Your task to perform on an android device: turn on notifications settings in the gmail app Image 0: 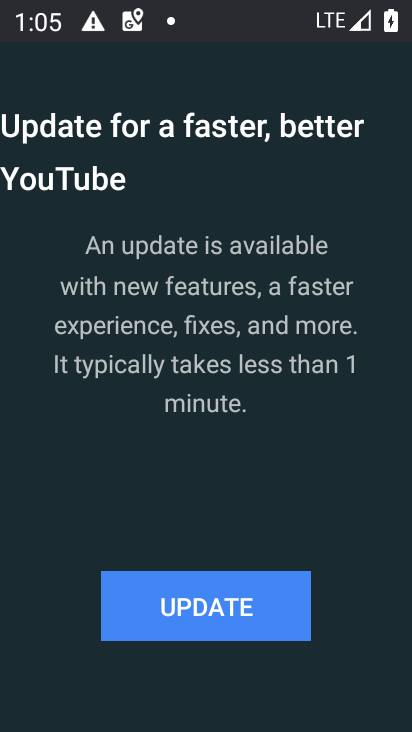
Step 0: press home button
Your task to perform on an android device: turn on notifications settings in the gmail app Image 1: 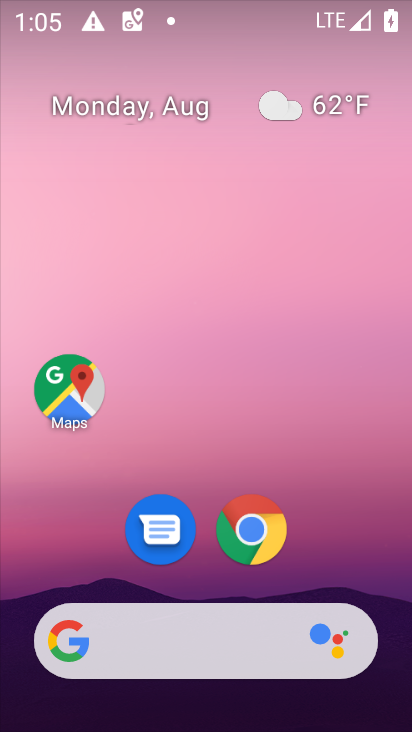
Step 1: drag from (172, 589) to (173, 279)
Your task to perform on an android device: turn on notifications settings in the gmail app Image 2: 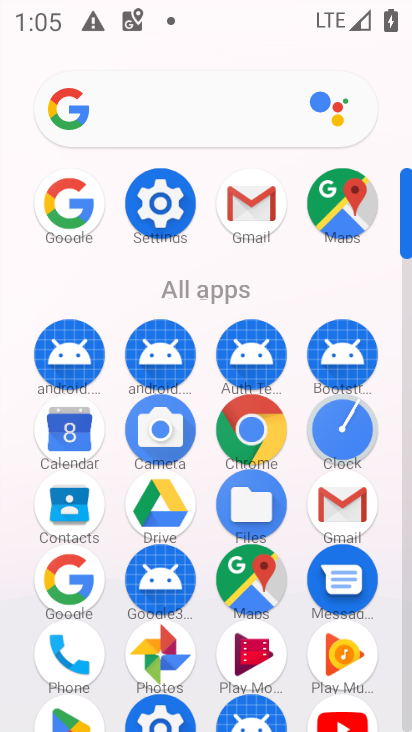
Step 2: click (357, 504)
Your task to perform on an android device: turn on notifications settings in the gmail app Image 3: 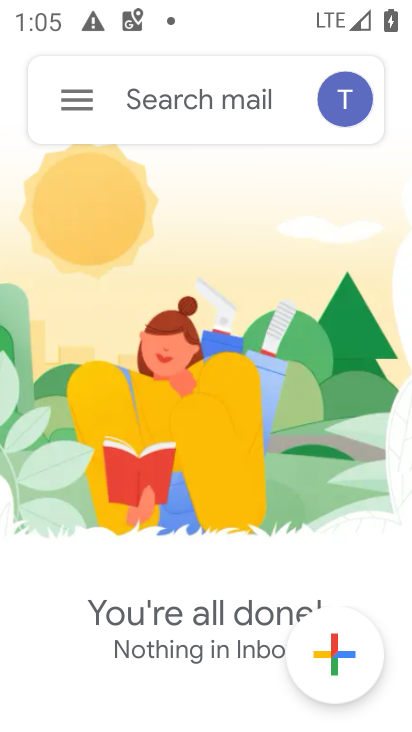
Step 3: click (79, 105)
Your task to perform on an android device: turn on notifications settings in the gmail app Image 4: 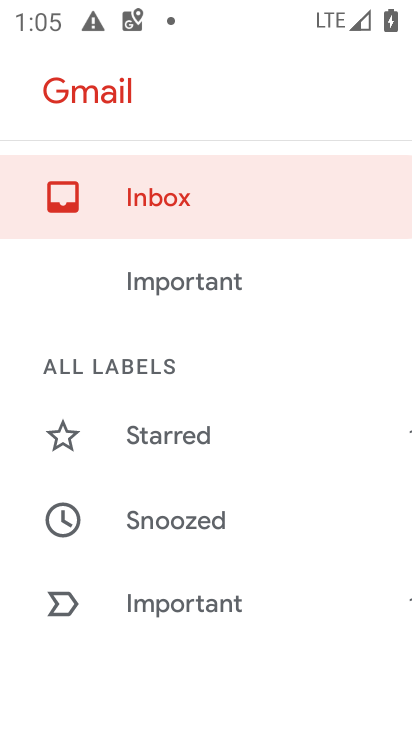
Step 4: drag from (144, 639) to (155, 244)
Your task to perform on an android device: turn on notifications settings in the gmail app Image 5: 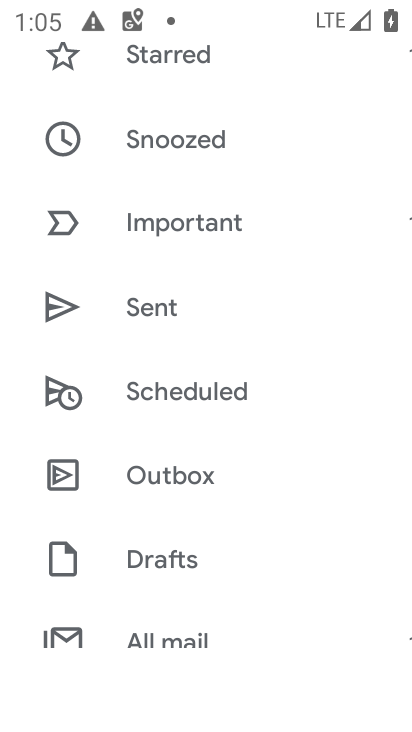
Step 5: drag from (158, 631) to (163, 334)
Your task to perform on an android device: turn on notifications settings in the gmail app Image 6: 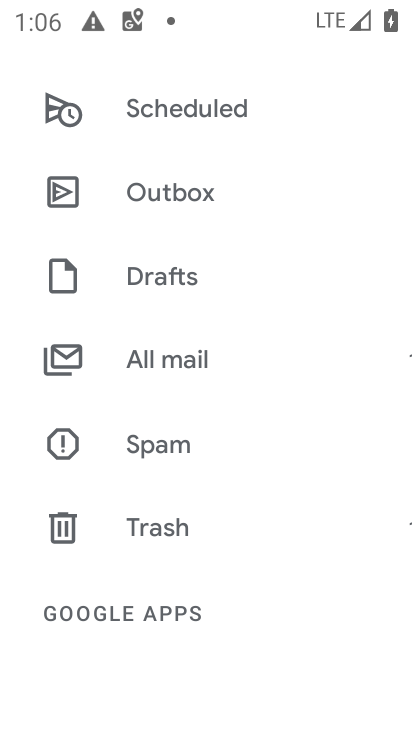
Step 6: drag from (148, 642) to (147, 337)
Your task to perform on an android device: turn on notifications settings in the gmail app Image 7: 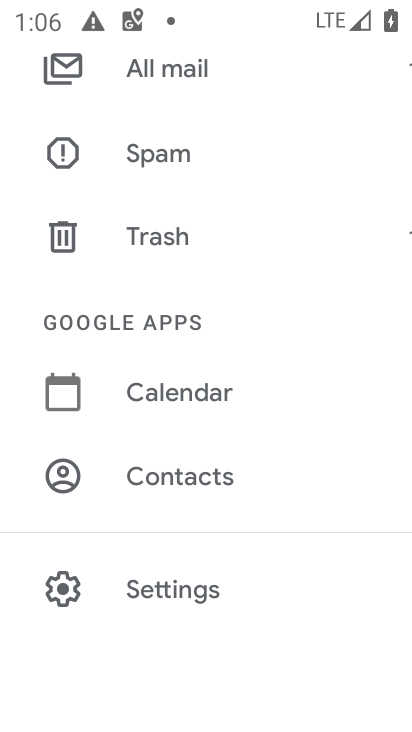
Step 7: click (124, 588)
Your task to perform on an android device: turn on notifications settings in the gmail app Image 8: 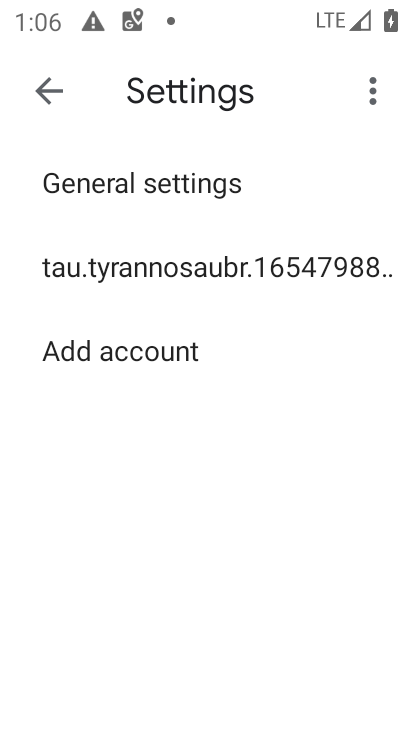
Step 8: click (100, 268)
Your task to perform on an android device: turn on notifications settings in the gmail app Image 9: 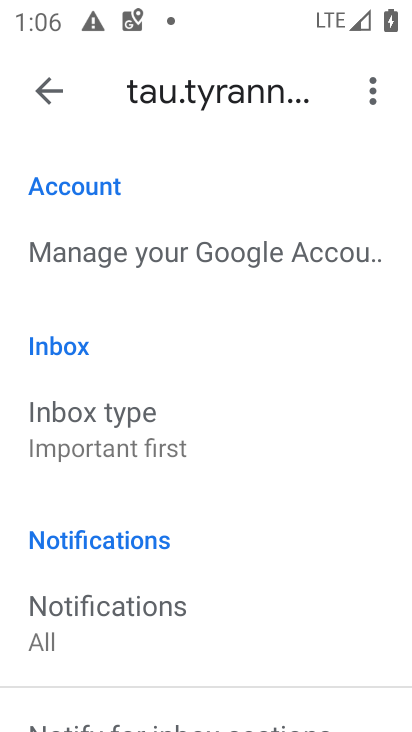
Step 9: drag from (95, 664) to (93, 257)
Your task to perform on an android device: turn on notifications settings in the gmail app Image 10: 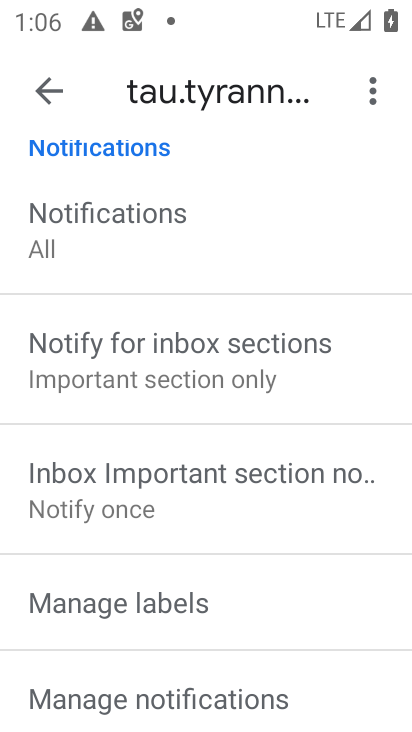
Step 10: drag from (97, 652) to (107, 317)
Your task to perform on an android device: turn on notifications settings in the gmail app Image 11: 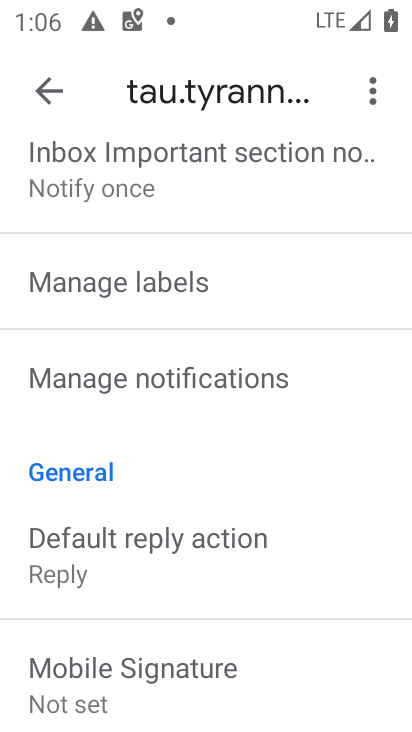
Step 11: click (124, 699)
Your task to perform on an android device: turn on notifications settings in the gmail app Image 12: 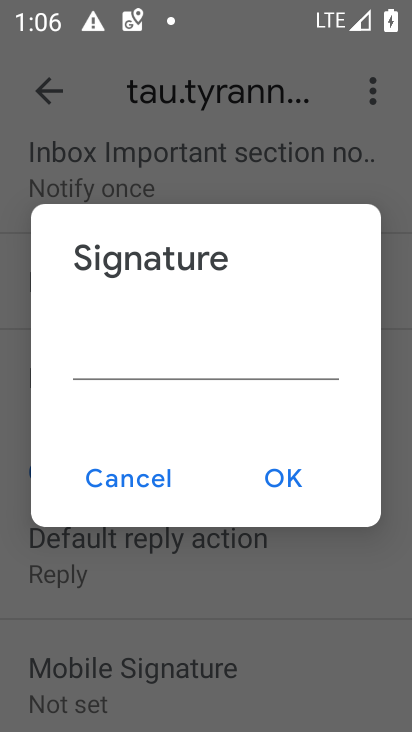
Step 12: click (159, 475)
Your task to perform on an android device: turn on notifications settings in the gmail app Image 13: 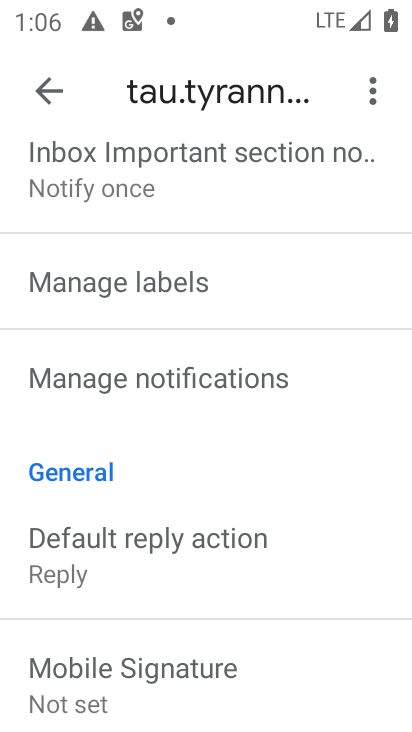
Step 13: click (95, 389)
Your task to perform on an android device: turn on notifications settings in the gmail app Image 14: 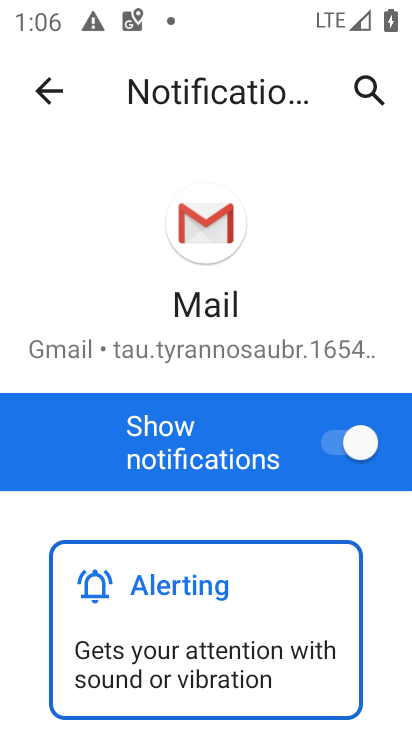
Step 14: task complete